Your task to perform on an android device: What's the weather going to be this weekend? Image 0: 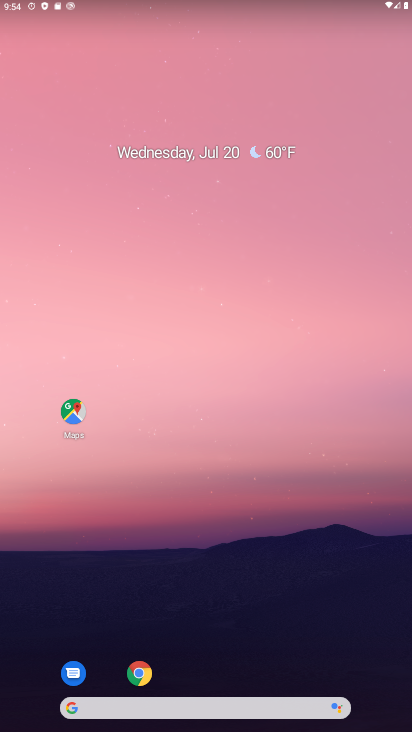
Step 0: drag from (256, 654) to (265, 131)
Your task to perform on an android device: What's the weather going to be this weekend? Image 1: 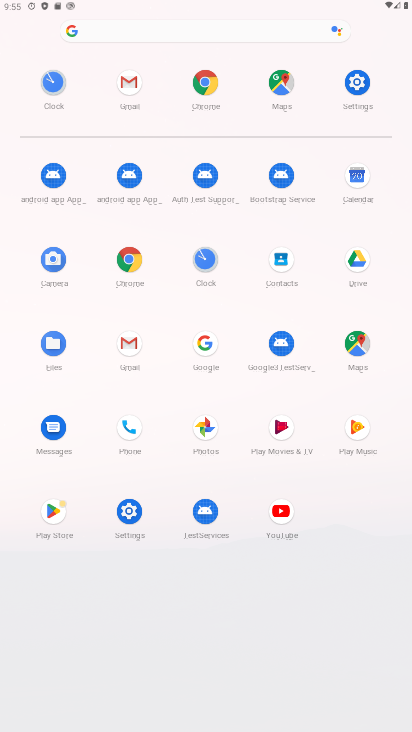
Step 1: click (233, 31)
Your task to perform on an android device: What's the weather going to be this weekend? Image 2: 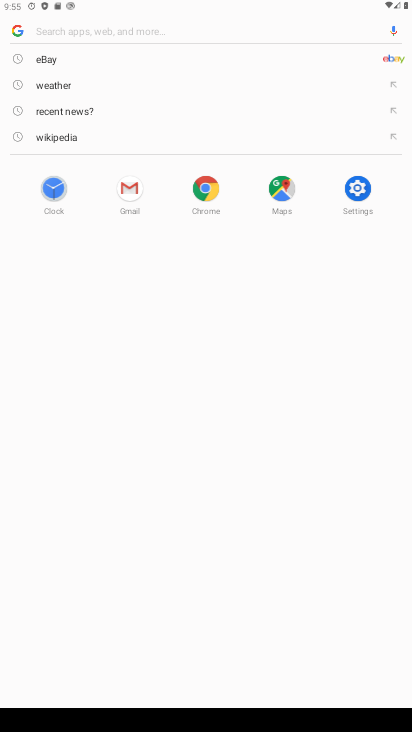
Step 2: type "weather"
Your task to perform on an android device: What's the weather going to be this weekend? Image 3: 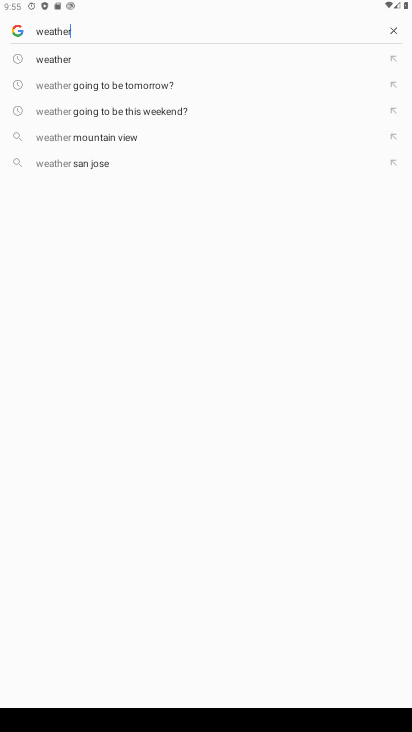
Step 3: click (80, 54)
Your task to perform on an android device: What's the weather going to be this weekend? Image 4: 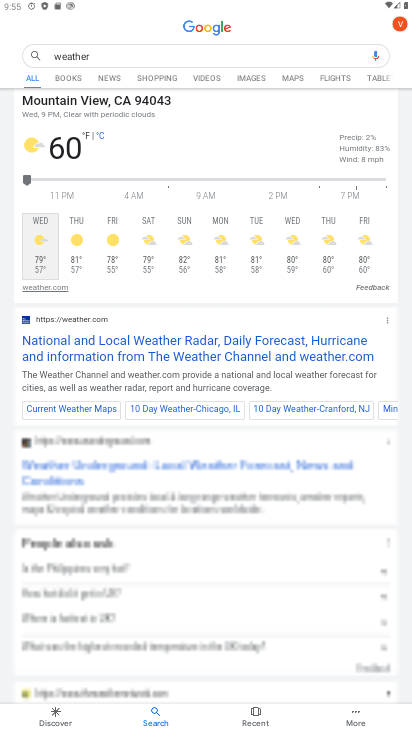
Step 4: task complete